Your task to perform on an android device: Search for Italian restaurants on Maps Image 0: 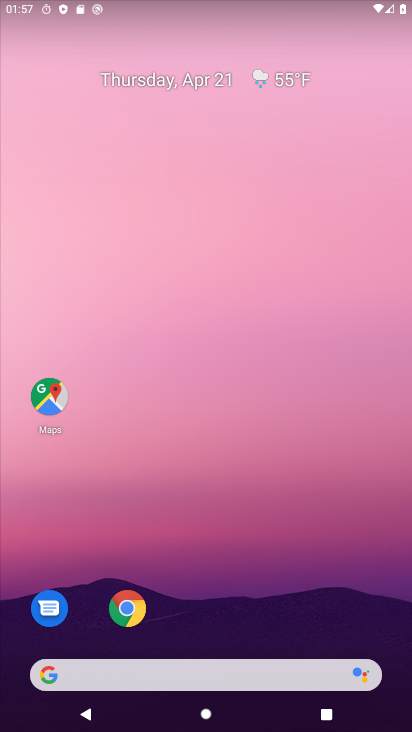
Step 0: click (36, 395)
Your task to perform on an android device: Search for Italian restaurants on Maps Image 1: 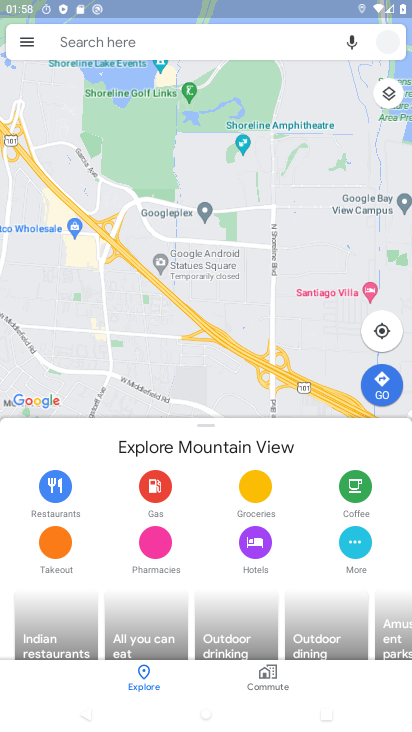
Step 1: click (158, 40)
Your task to perform on an android device: Search for Italian restaurants on Maps Image 2: 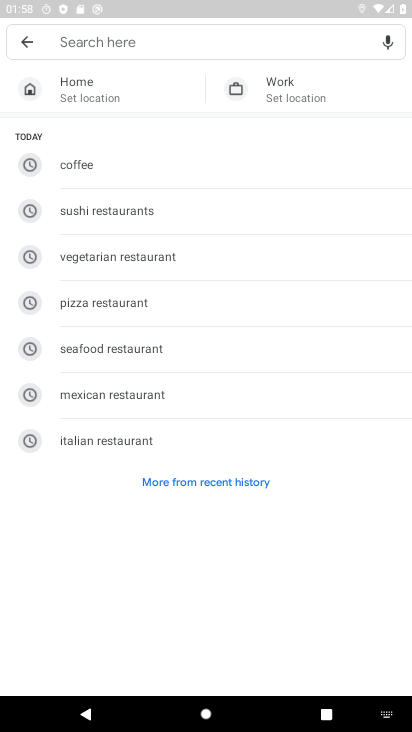
Step 2: click (76, 442)
Your task to perform on an android device: Search for Italian restaurants on Maps Image 3: 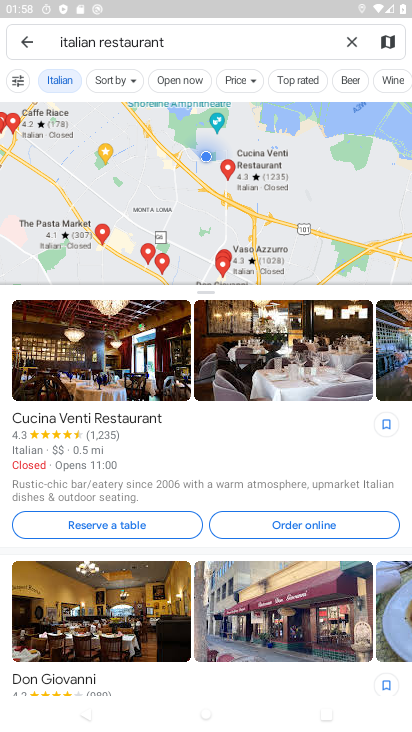
Step 3: task complete